Your task to perform on an android device: all mails in gmail Image 0: 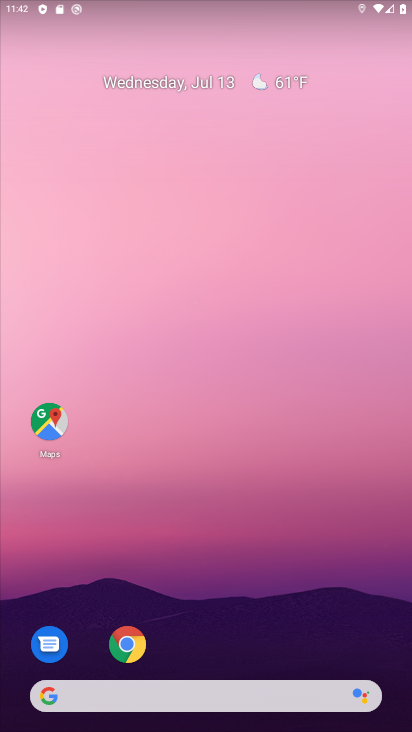
Step 0: drag from (245, 618) to (325, 89)
Your task to perform on an android device: all mails in gmail Image 1: 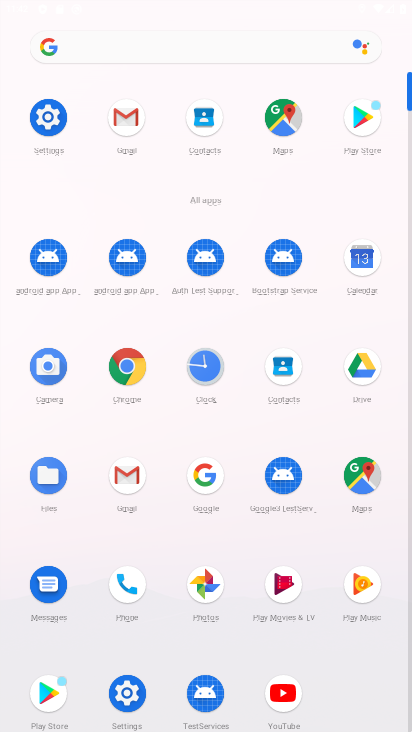
Step 1: click (120, 472)
Your task to perform on an android device: all mails in gmail Image 2: 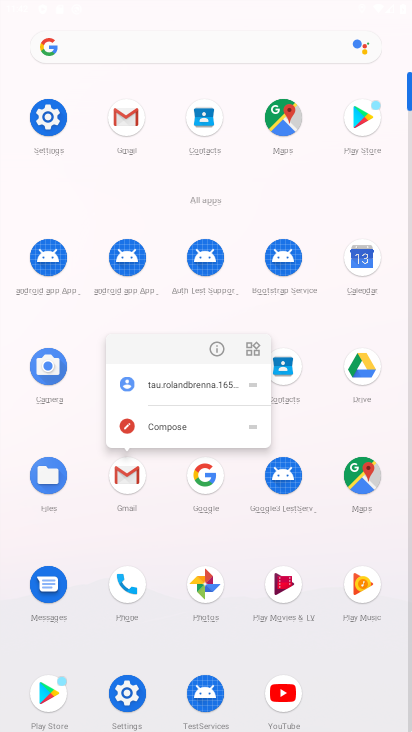
Step 2: click (128, 475)
Your task to perform on an android device: all mails in gmail Image 3: 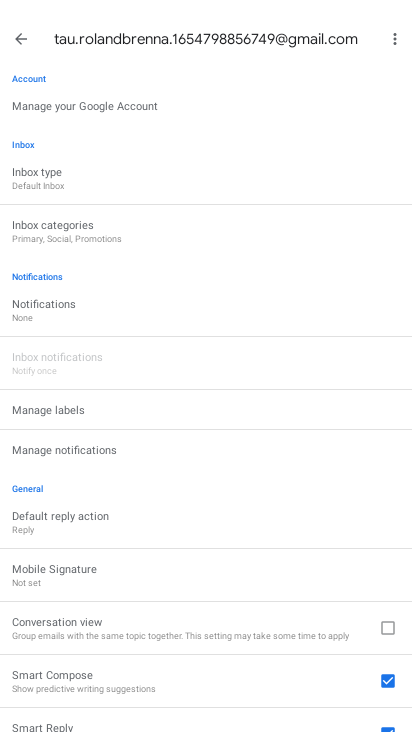
Step 3: task complete